Your task to perform on an android device: open app "AliExpress" (install if not already installed) Image 0: 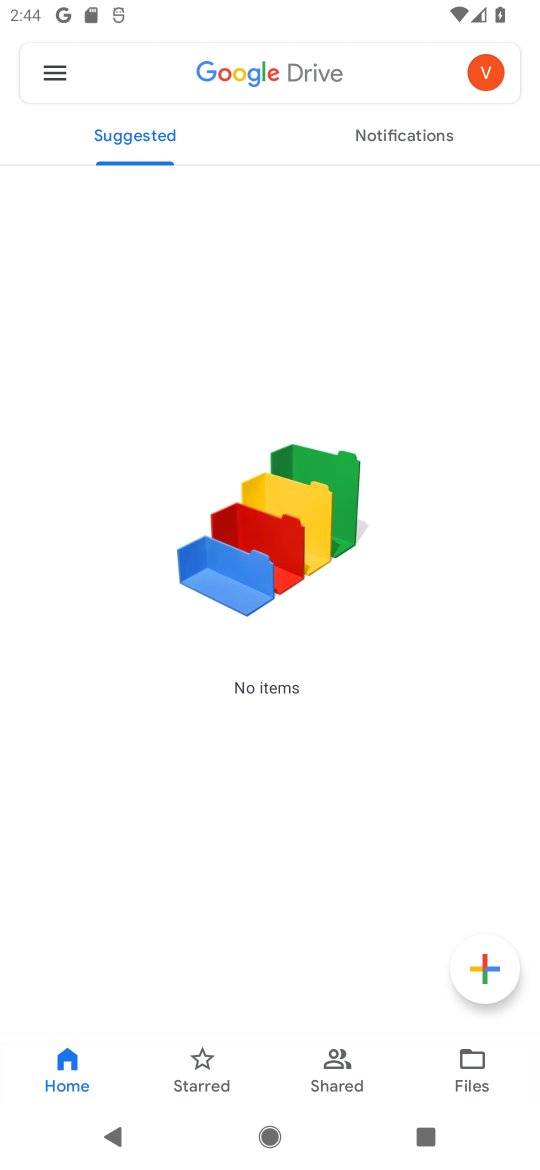
Step 0: press home button
Your task to perform on an android device: open app "AliExpress" (install if not already installed) Image 1: 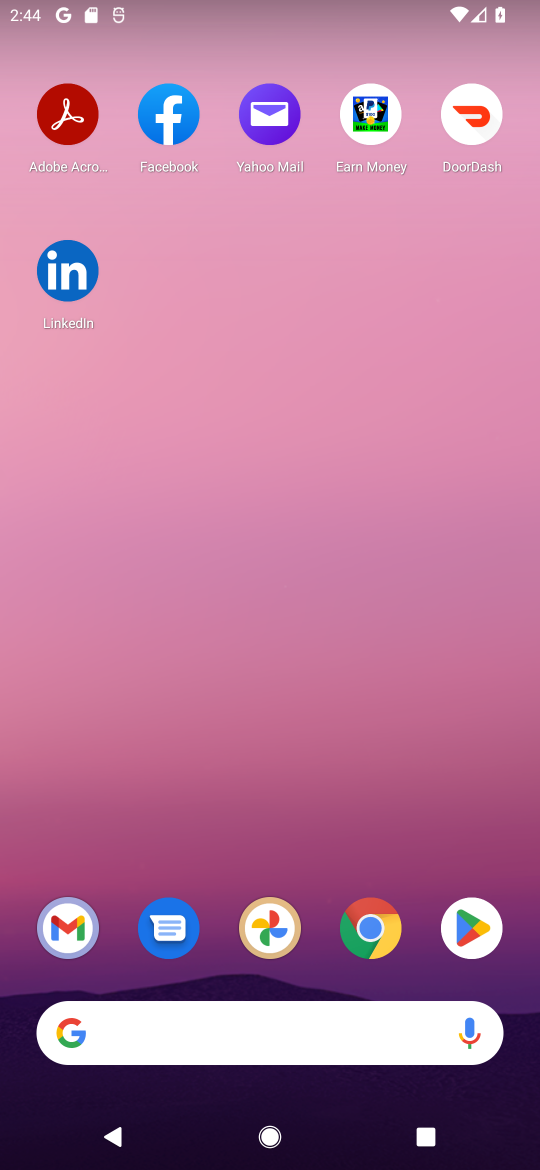
Step 1: click (494, 932)
Your task to perform on an android device: open app "AliExpress" (install if not already installed) Image 2: 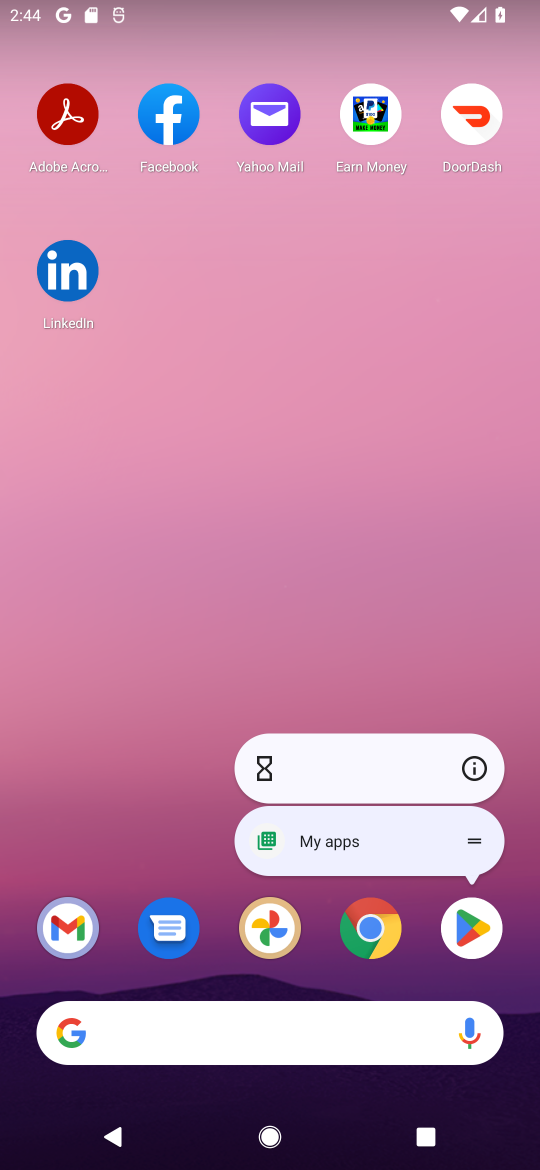
Step 2: click (478, 935)
Your task to perform on an android device: open app "AliExpress" (install if not already installed) Image 3: 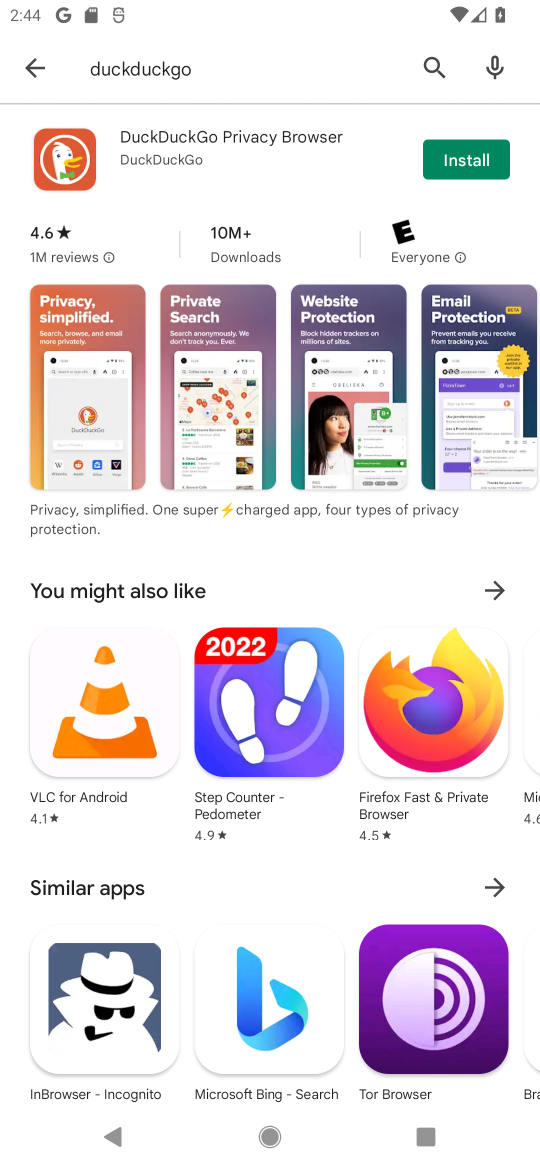
Step 3: click (428, 66)
Your task to perform on an android device: open app "AliExpress" (install if not already installed) Image 4: 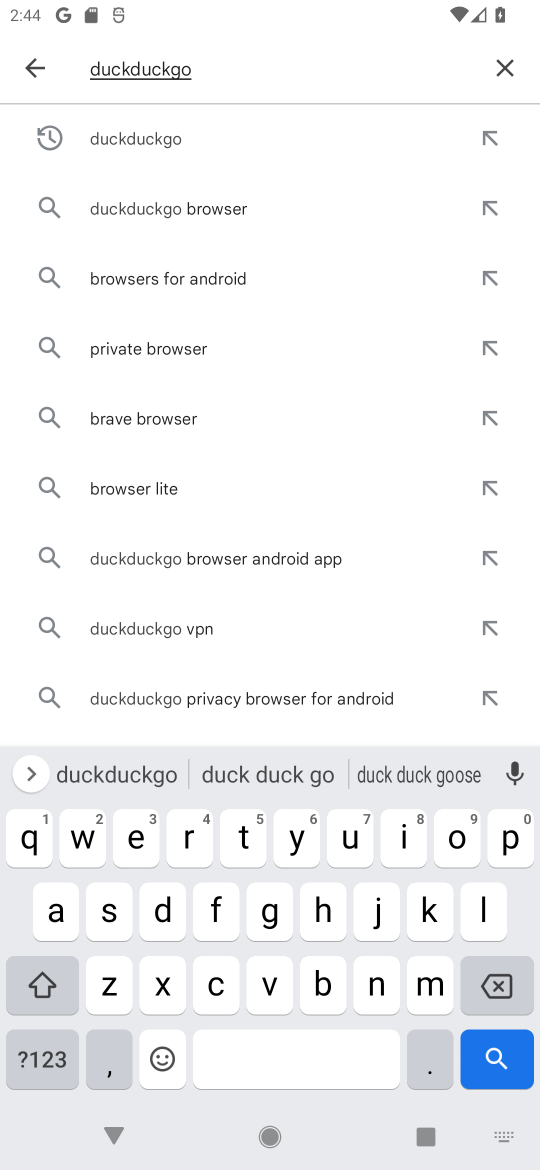
Step 4: click (505, 70)
Your task to perform on an android device: open app "AliExpress" (install if not already installed) Image 5: 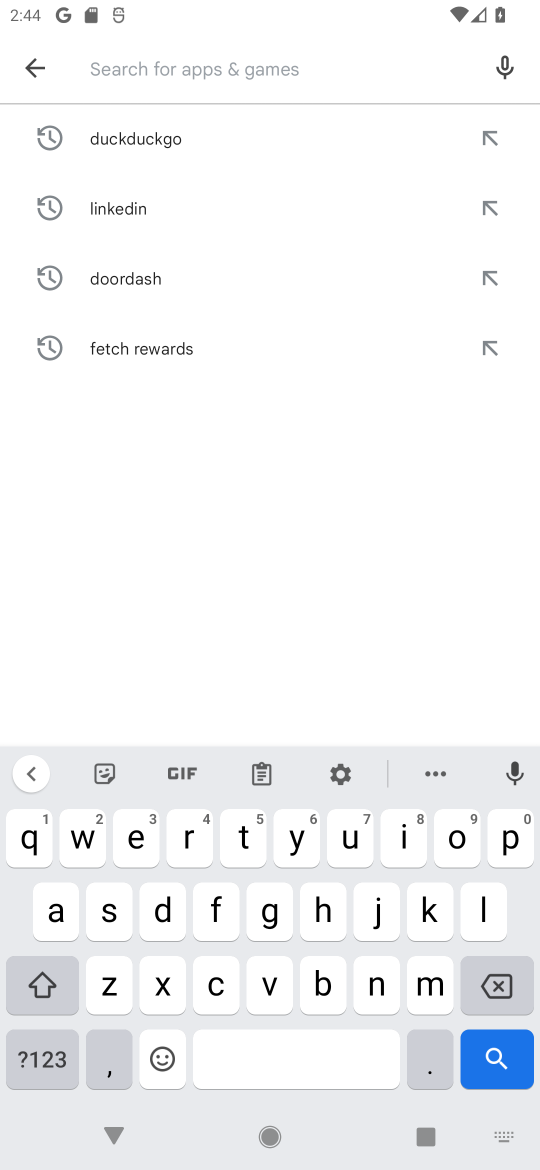
Step 5: click (45, 918)
Your task to perform on an android device: open app "AliExpress" (install if not already installed) Image 6: 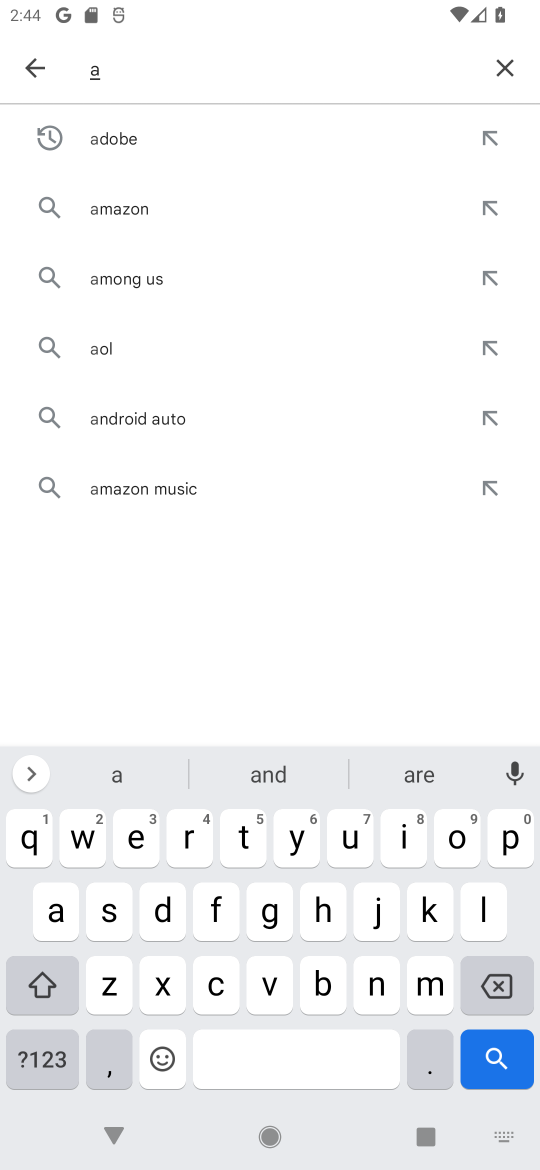
Step 6: click (466, 915)
Your task to perform on an android device: open app "AliExpress" (install if not already installed) Image 7: 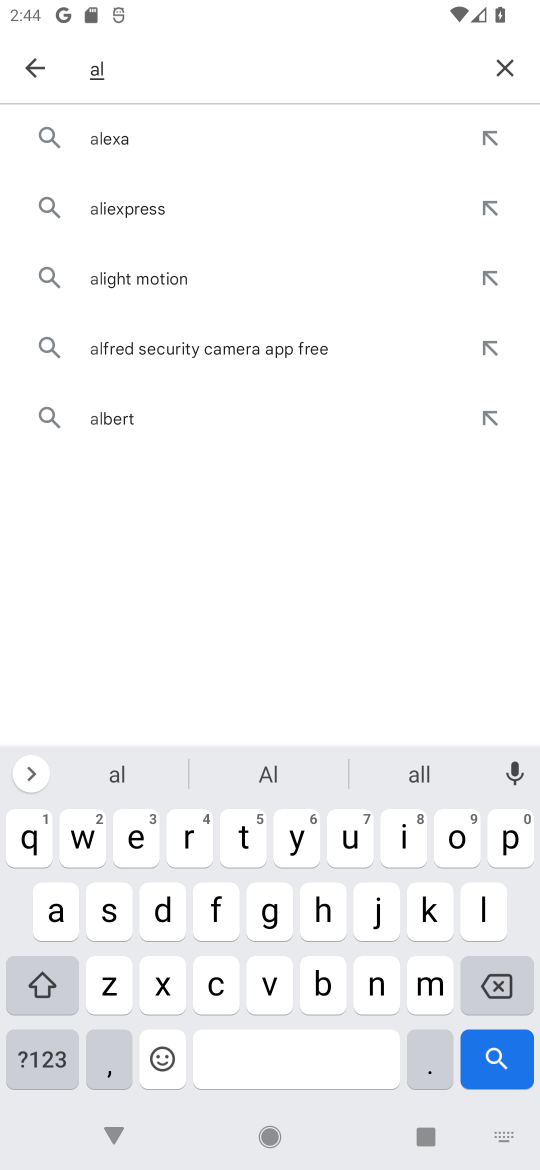
Step 7: click (398, 841)
Your task to perform on an android device: open app "AliExpress" (install if not already installed) Image 8: 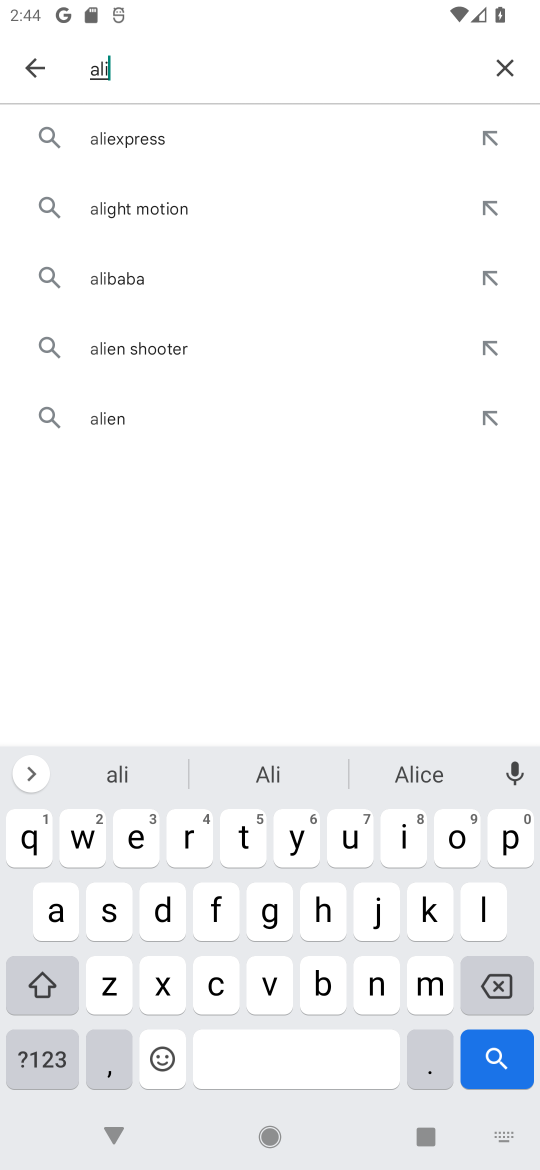
Step 8: click (132, 137)
Your task to perform on an android device: open app "AliExpress" (install if not already installed) Image 9: 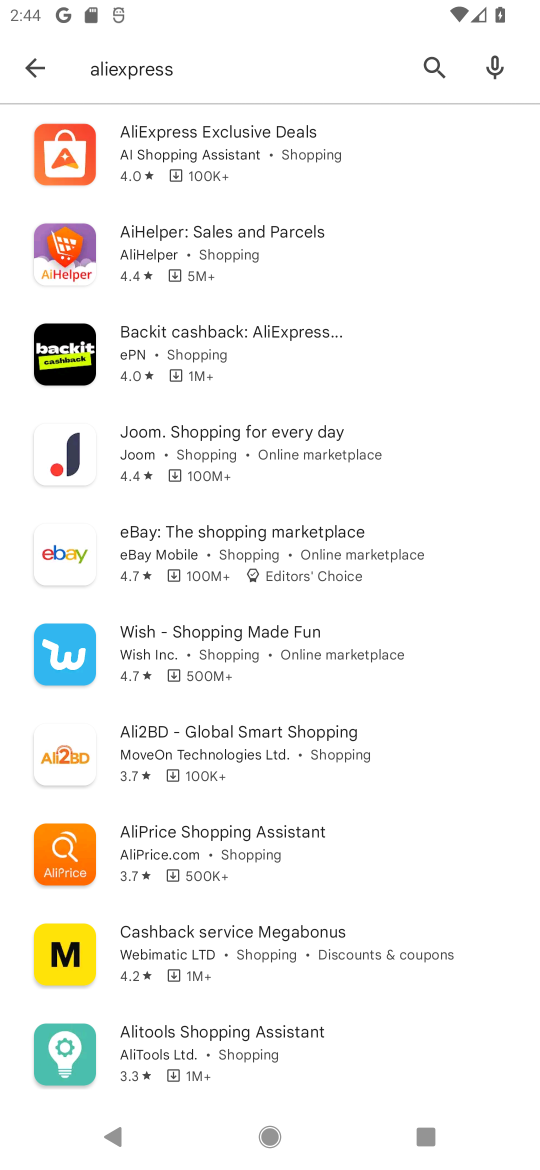
Step 9: click (268, 169)
Your task to perform on an android device: open app "AliExpress" (install if not already installed) Image 10: 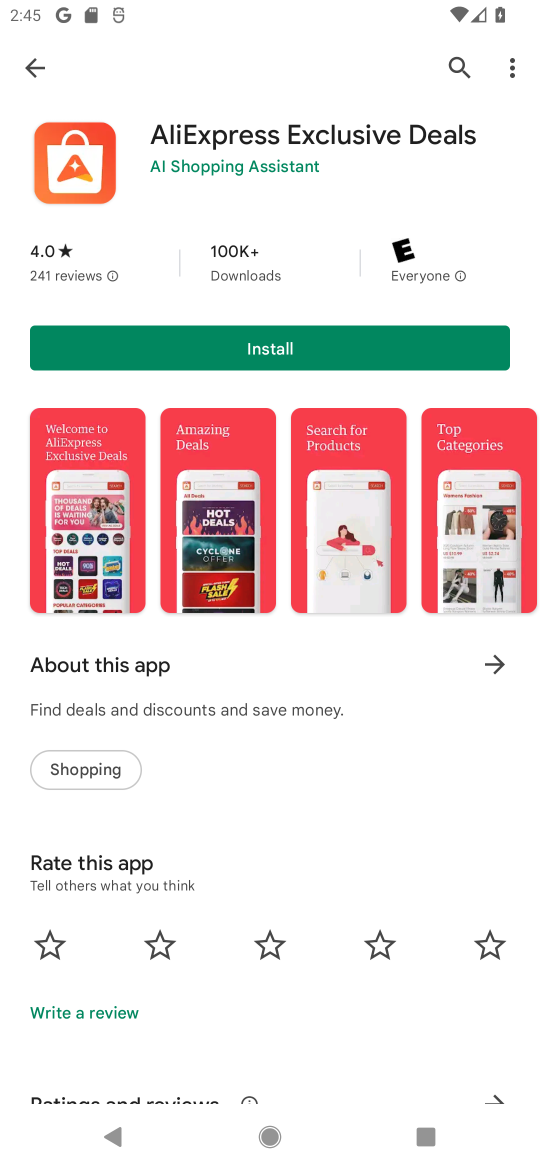
Step 10: click (267, 347)
Your task to perform on an android device: open app "AliExpress" (install if not already installed) Image 11: 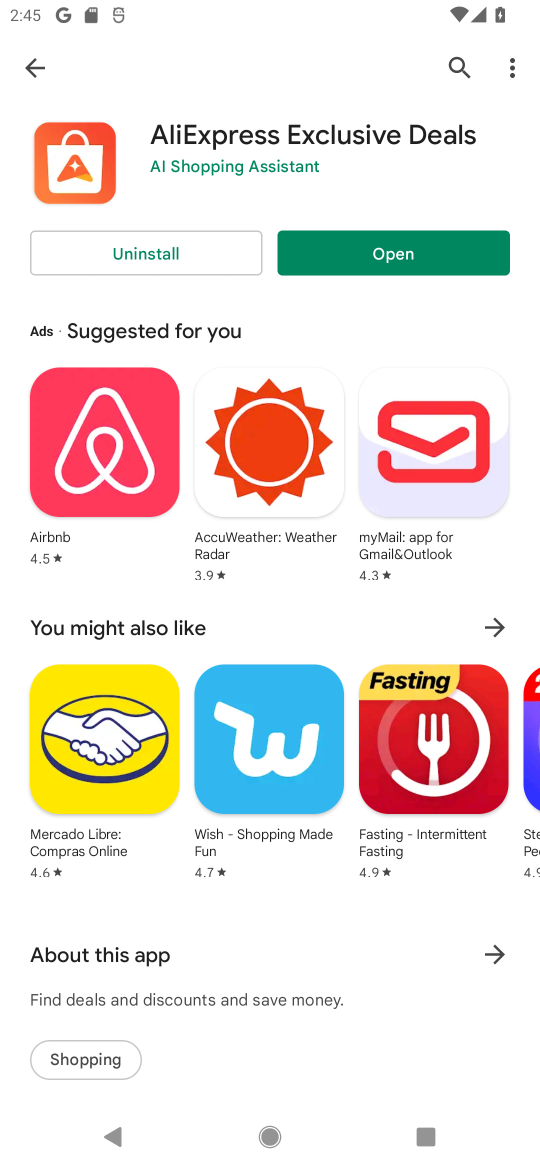
Step 11: click (443, 252)
Your task to perform on an android device: open app "AliExpress" (install if not already installed) Image 12: 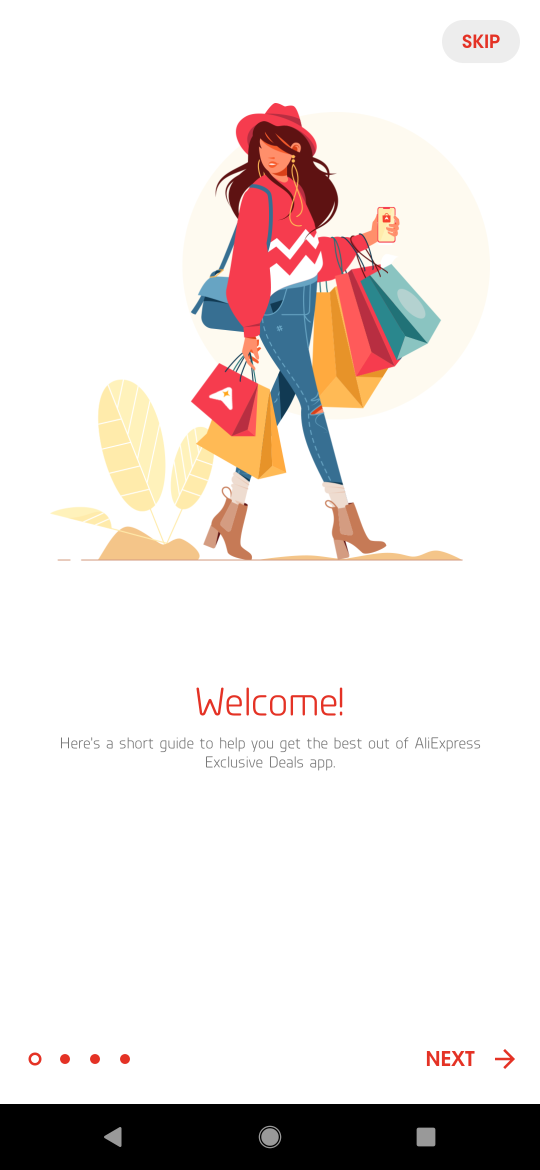
Step 12: task complete